Your task to perform on an android device: open a new tab in the chrome app Image 0: 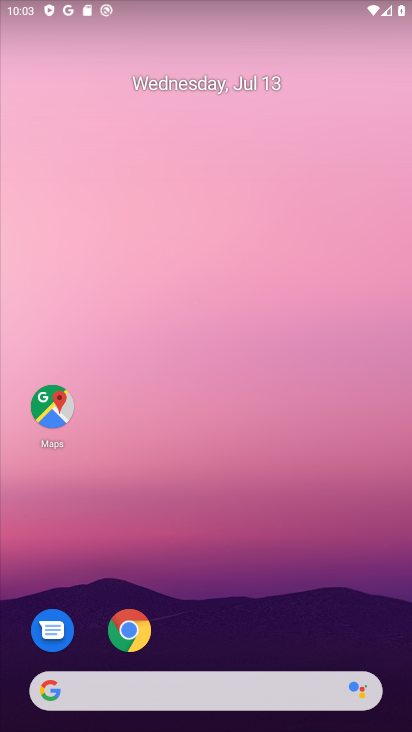
Step 0: drag from (368, 622) to (345, 94)
Your task to perform on an android device: open a new tab in the chrome app Image 1: 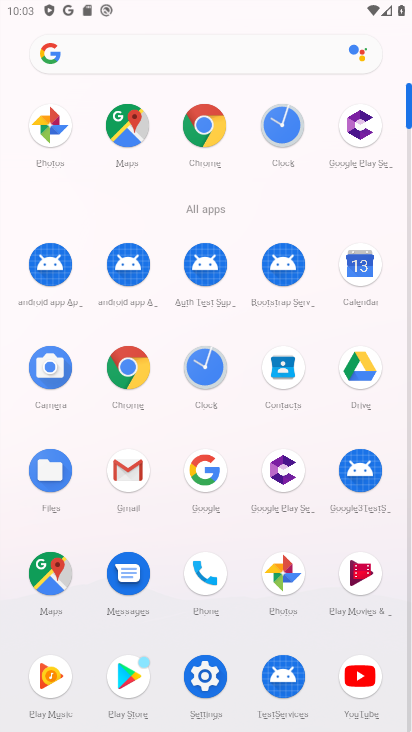
Step 1: click (210, 133)
Your task to perform on an android device: open a new tab in the chrome app Image 2: 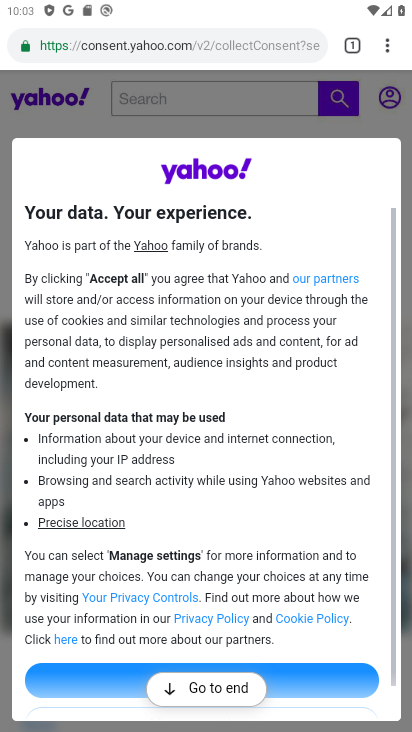
Step 2: click (384, 41)
Your task to perform on an android device: open a new tab in the chrome app Image 3: 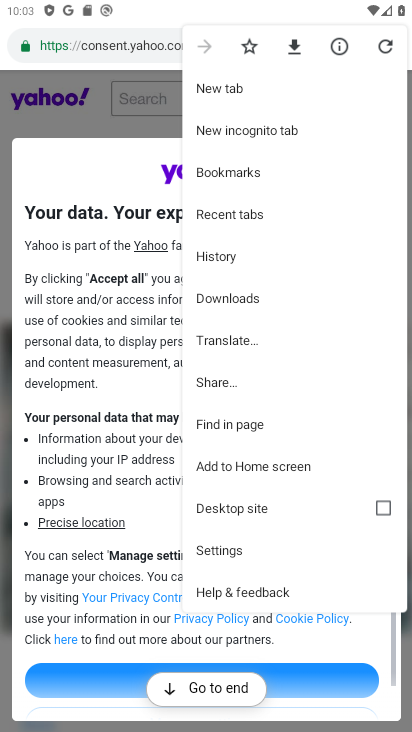
Step 3: click (317, 86)
Your task to perform on an android device: open a new tab in the chrome app Image 4: 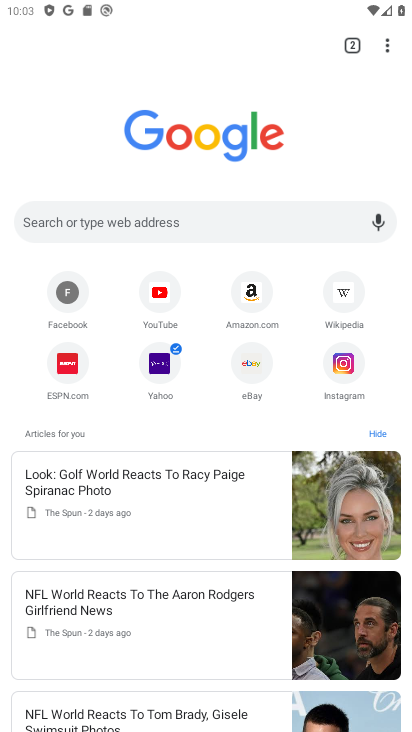
Step 4: task complete